Your task to perform on an android device: turn off notifications settings in the gmail app Image 0: 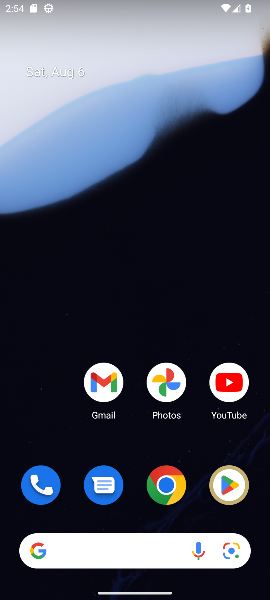
Step 0: press home button
Your task to perform on an android device: turn off notifications settings in the gmail app Image 1: 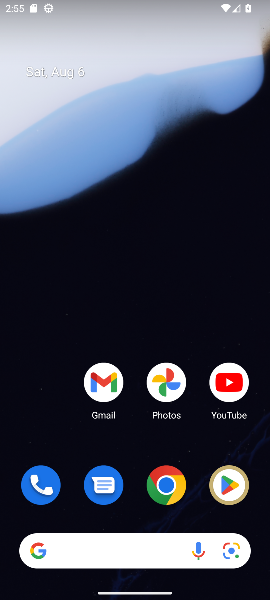
Step 1: click (104, 375)
Your task to perform on an android device: turn off notifications settings in the gmail app Image 2: 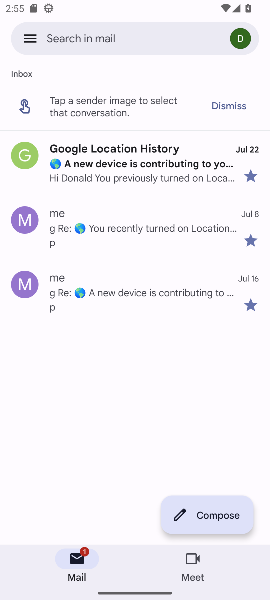
Step 2: click (29, 38)
Your task to perform on an android device: turn off notifications settings in the gmail app Image 3: 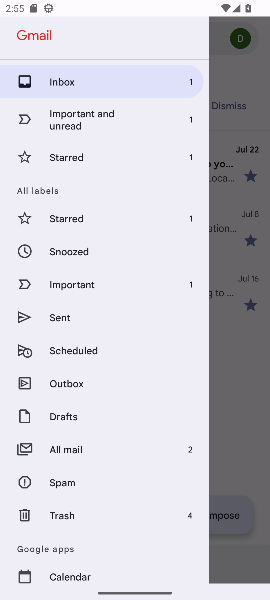
Step 3: drag from (83, 524) to (116, 123)
Your task to perform on an android device: turn off notifications settings in the gmail app Image 4: 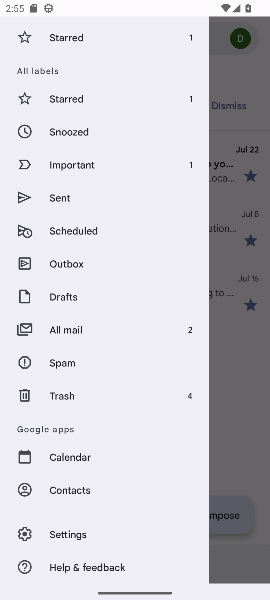
Step 4: click (96, 528)
Your task to perform on an android device: turn off notifications settings in the gmail app Image 5: 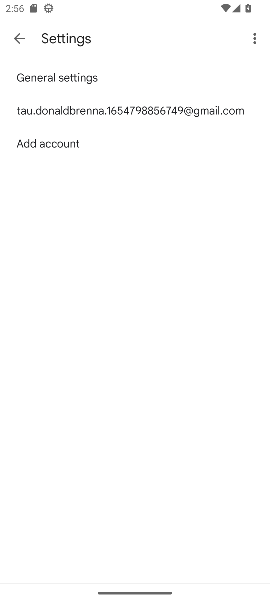
Step 5: click (95, 72)
Your task to perform on an android device: turn off notifications settings in the gmail app Image 6: 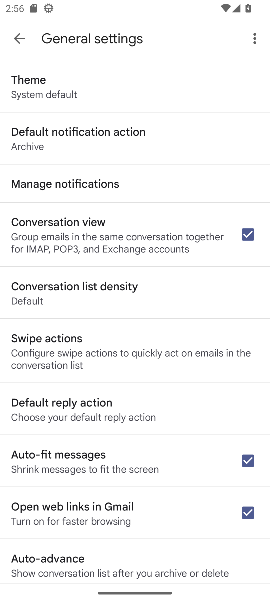
Step 6: click (73, 181)
Your task to perform on an android device: turn off notifications settings in the gmail app Image 7: 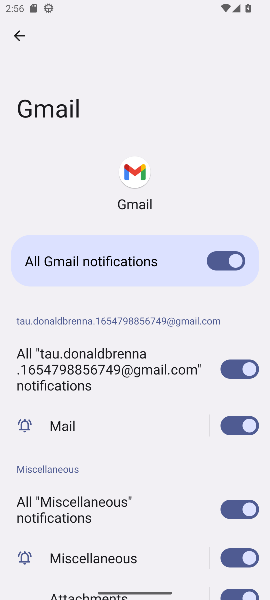
Step 7: click (222, 261)
Your task to perform on an android device: turn off notifications settings in the gmail app Image 8: 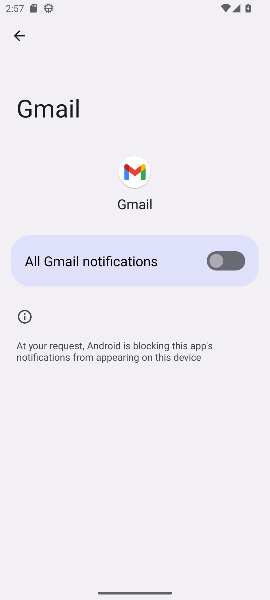
Step 8: task complete